Your task to perform on an android device: toggle show notifications on the lock screen Image 0: 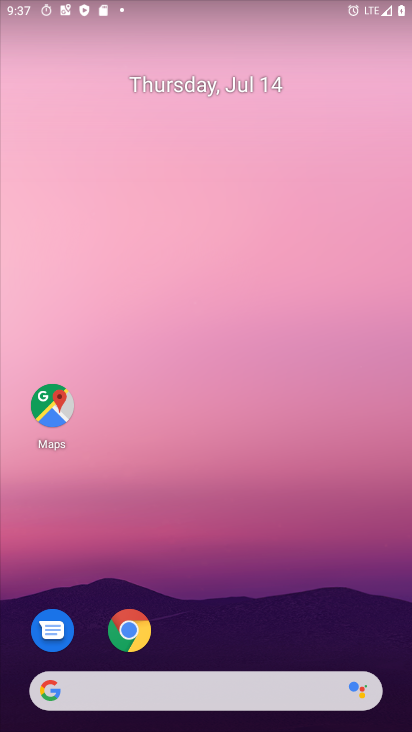
Step 0: drag from (202, 722) to (197, 159)
Your task to perform on an android device: toggle show notifications on the lock screen Image 1: 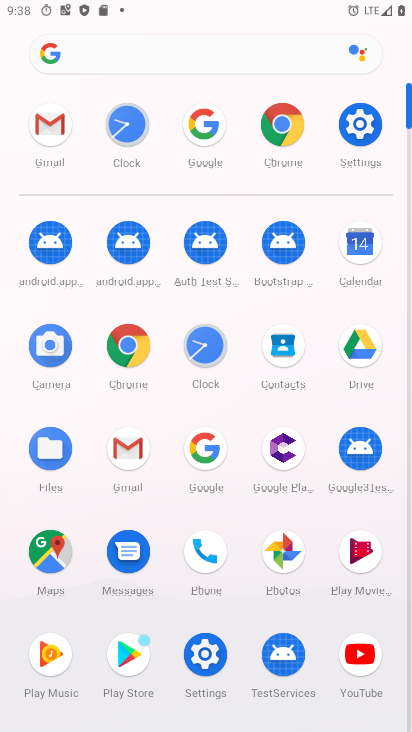
Step 1: click (354, 129)
Your task to perform on an android device: toggle show notifications on the lock screen Image 2: 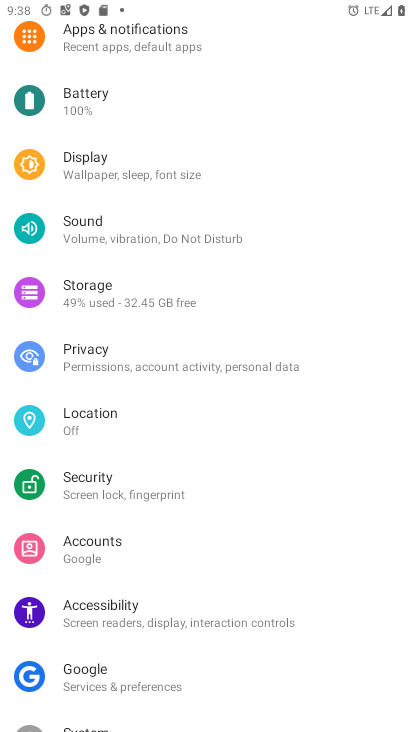
Step 2: click (130, 41)
Your task to perform on an android device: toggle show notifications on the lock screen Image 3: 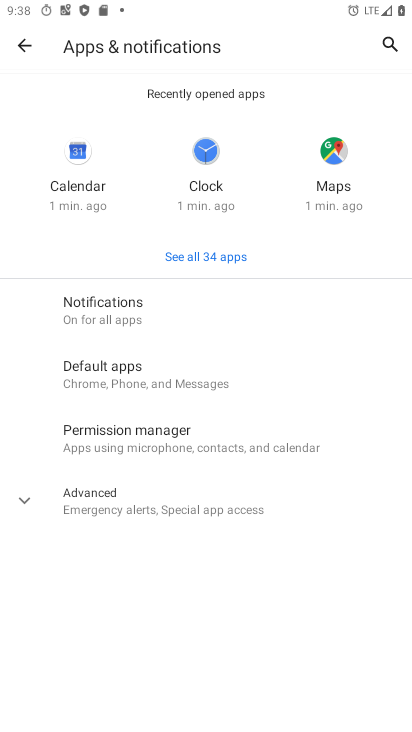
Step 3: click (81, 317)
Your task to perform on an android device: toggle show notifications on the lock screen Image 4: 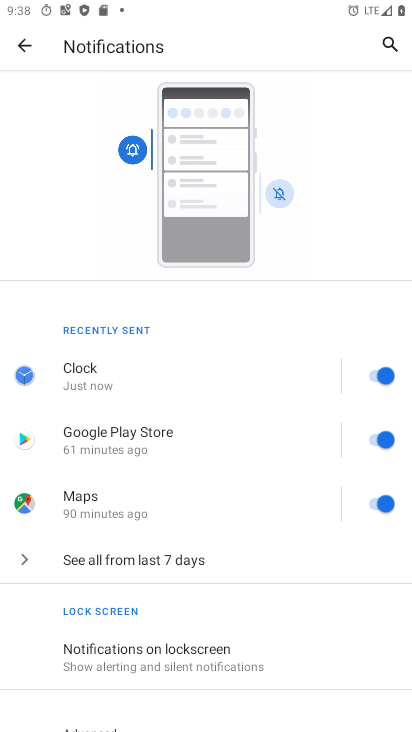
Step 4: task complete